Your task to perform on an android device: turn on location history Image 0: 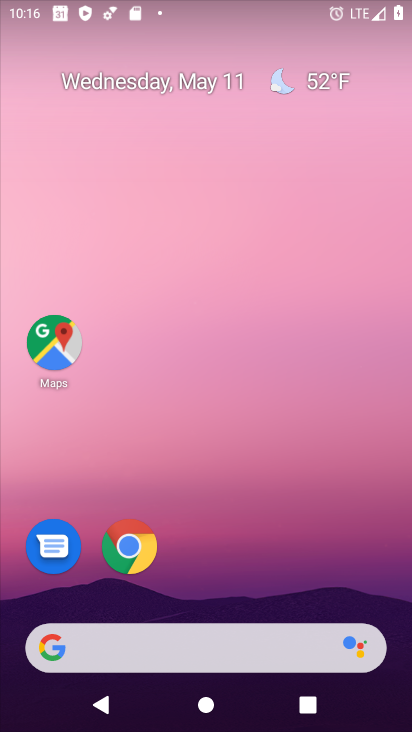
Step 0: drag from (227, 646) to (146, 133)
Your task to perform on an android device: turn on location history Image 1: 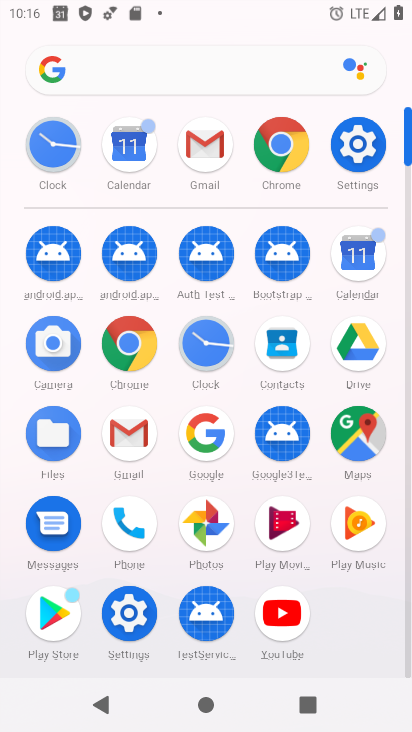
Step 1: click (382, 164)
Your task to perform on an android device: turn on location history Image 2: 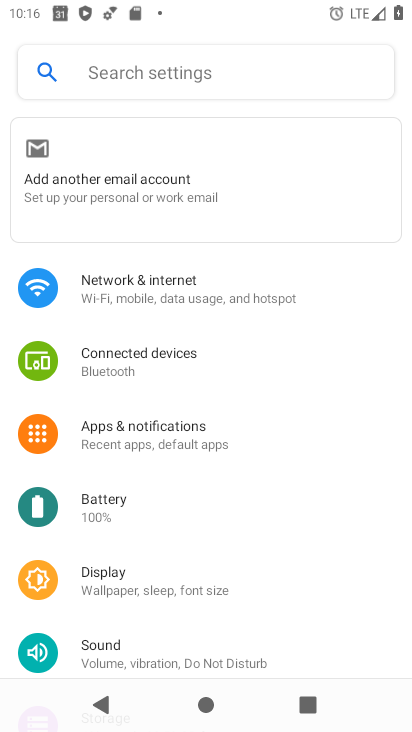
Step 2: drag from (147, 513) to (131, 179)
Your task to perform on an android device: turn on location history Image 3: 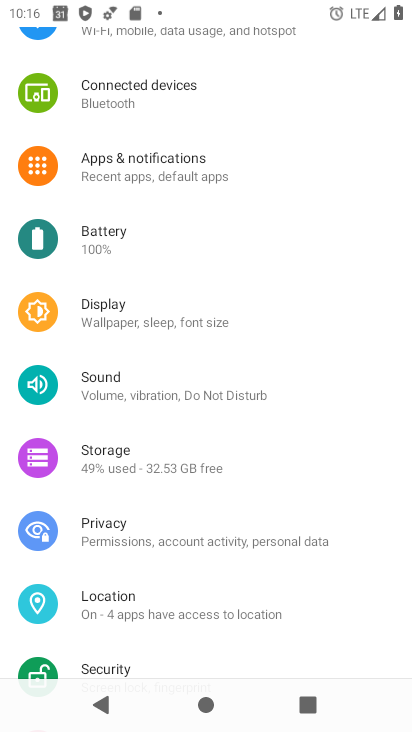
Step 3: click (113, 610)
Your task to perform on an android device: turn on location history Image 4: 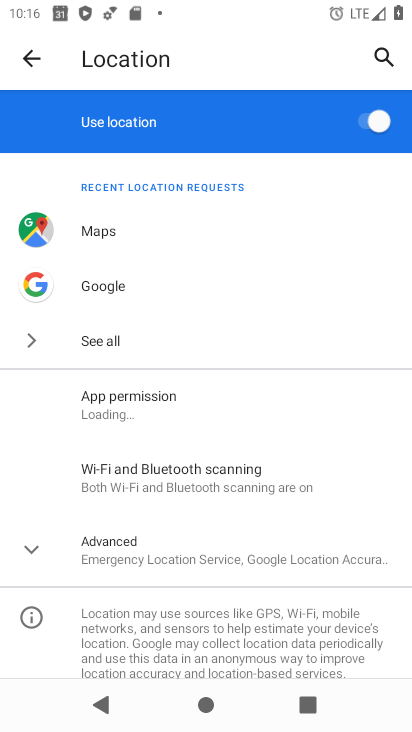
Step 4: click (138, 562)
Your task to perform on an android device: turn on location history Image 5: 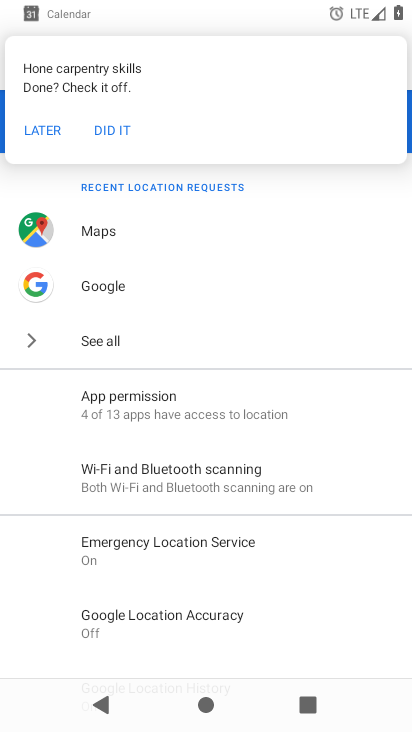
Step 5: drag from (170, 514) to (171, 260)
Your task to perform on an android device: turn on location history Image 6: 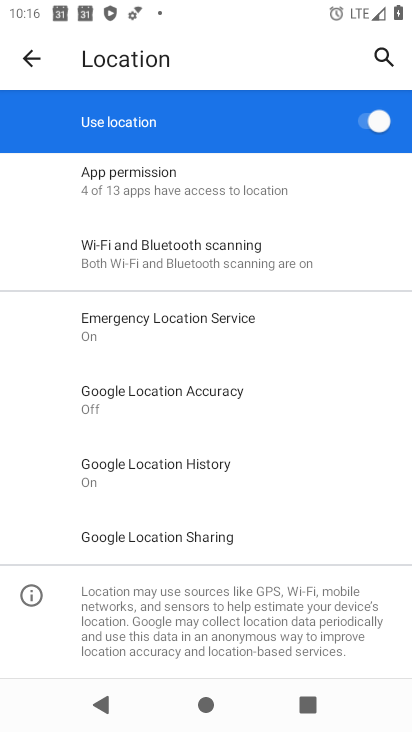
Step 6: click (162, 478)
Your task to perform on an android device: turn on location history Image 7: 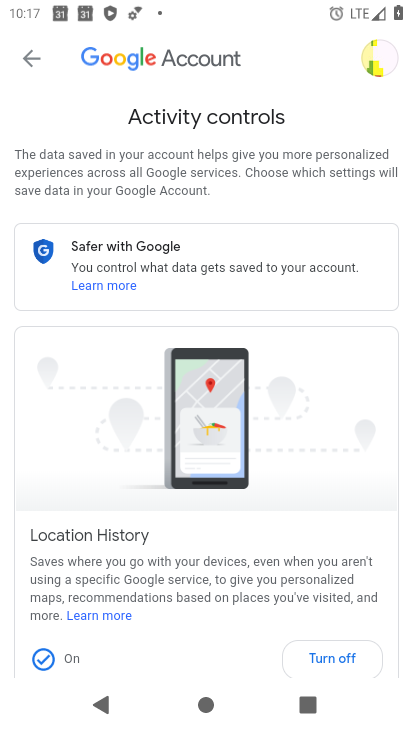
Step 7: task complete